Your task to perform on an android device: Go to ESPN.com Image 0: 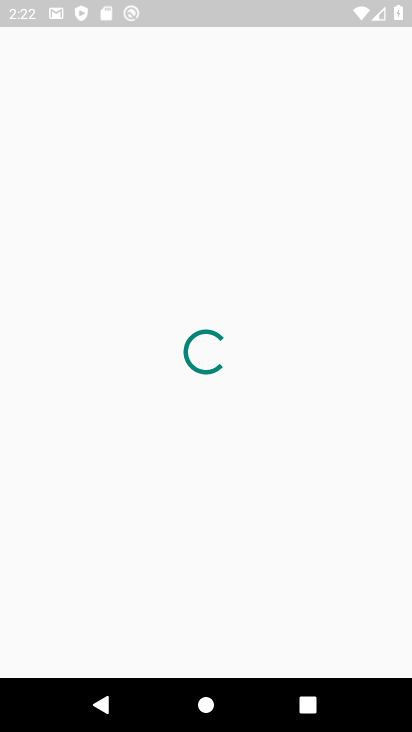
Step 0: click (130, 558)
Your task to perform on an android device: Go to ESPN.com Image 1: 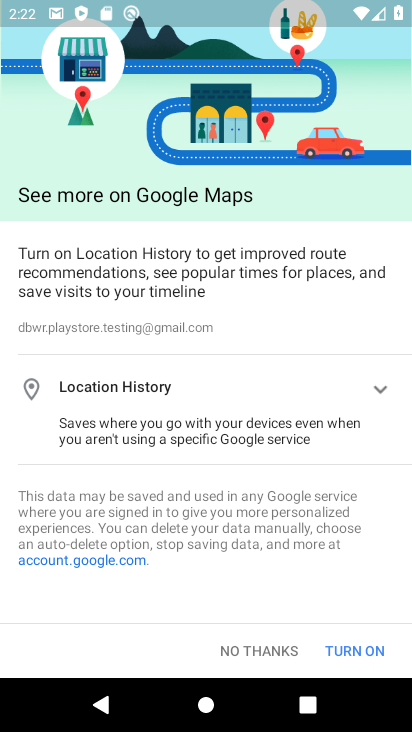
Step 1: click (345, 648)
Your task to perform on an android device: Go to ESPN.com Image 2: 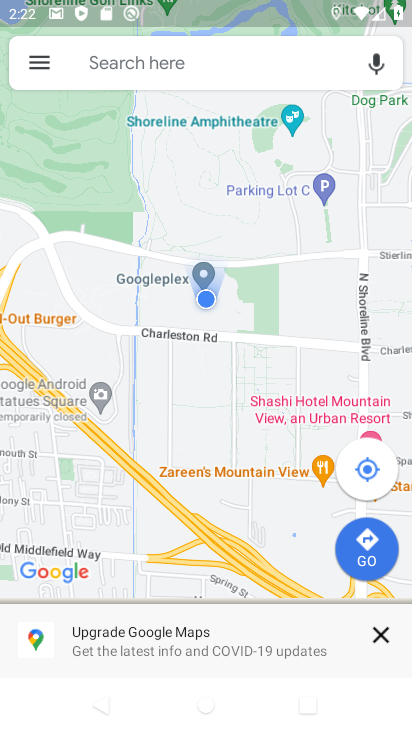
Step 2: press home button
Your task to perform on an android device: Go to ESPN.com Image 3: 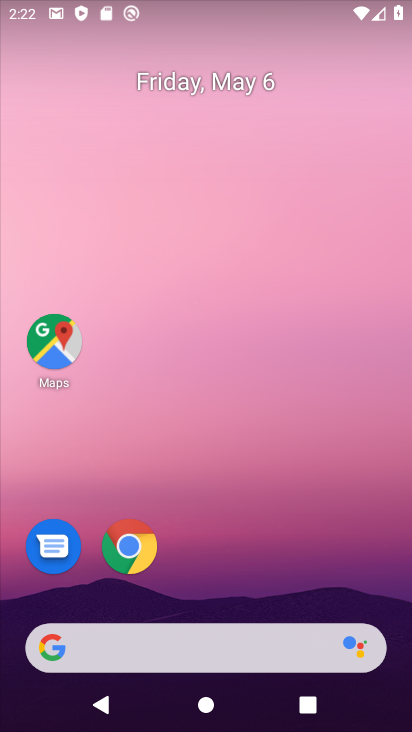
Step 3: click (134, 555)
Your task to perform on an android device: Go to ESPN.com Image 4: 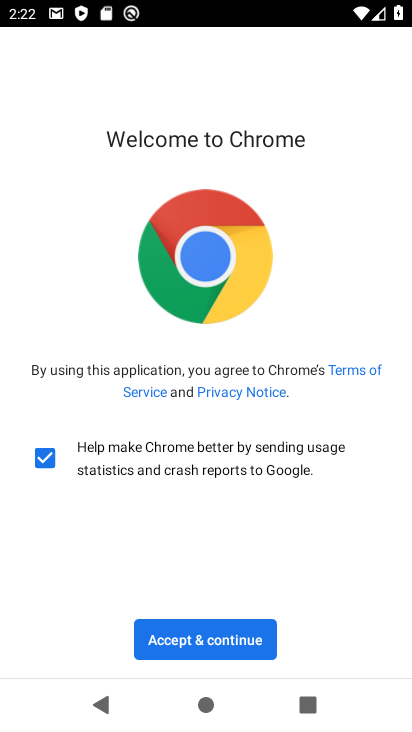
Step 4: click (247, 628)
Your task to perform on an android device: Go to ESPN.com Image 5: 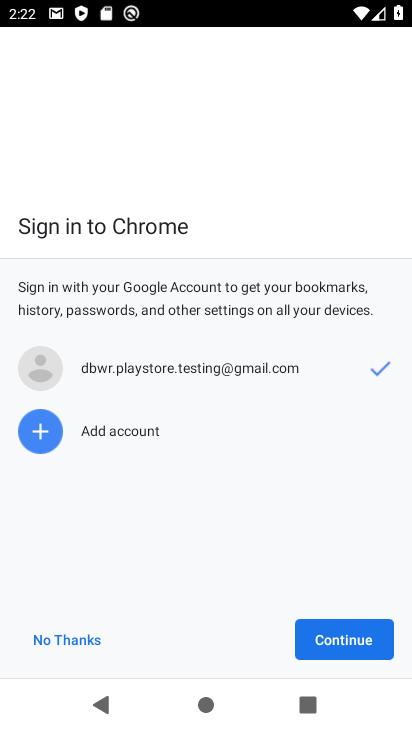
Step 5: click (372, 638)
Your task to perform on an android device: Go to ESPN.com Image 6: 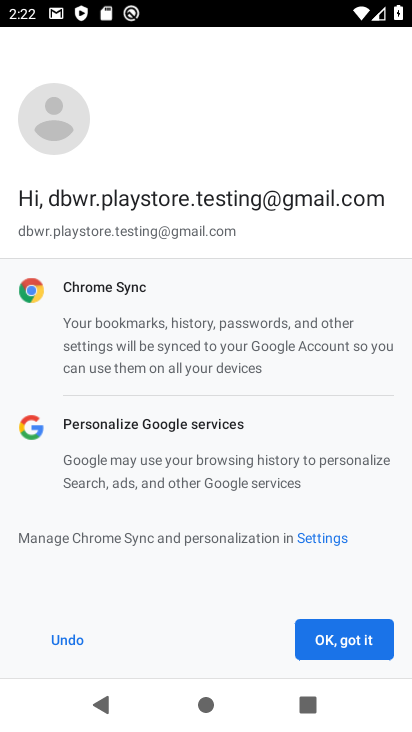
Step 6: click (372, 638)
Your task to perform on an android device: Go to ESPN.com Image 7: 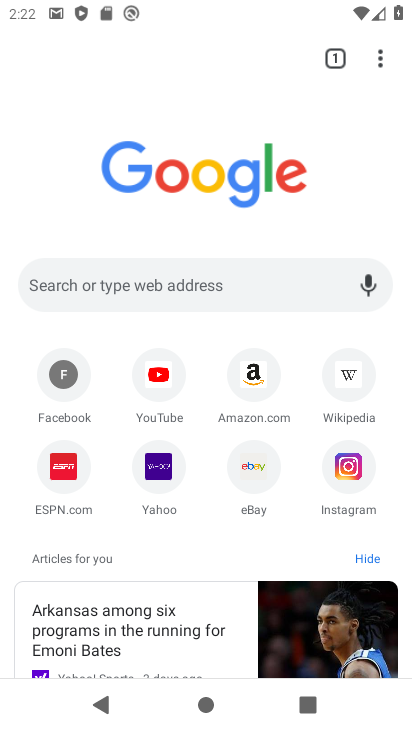
Step 7: click (63, 473)
Your task to perform on an android device: Go to ESPN.com Image 8: 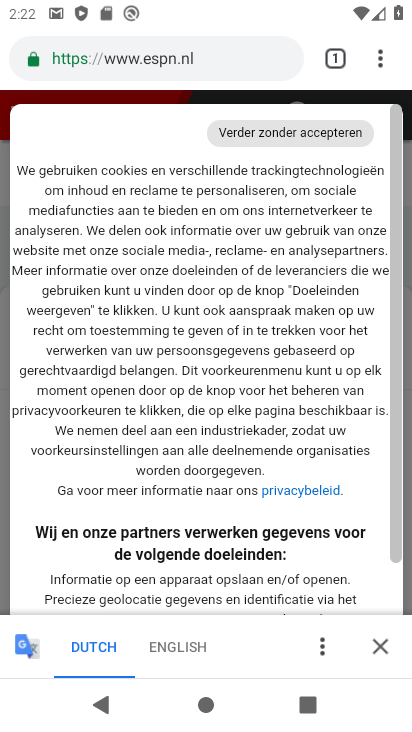
Step 8: task complete